Your task to perform on an android device: toggle show notifications on the lock screen Image 0: 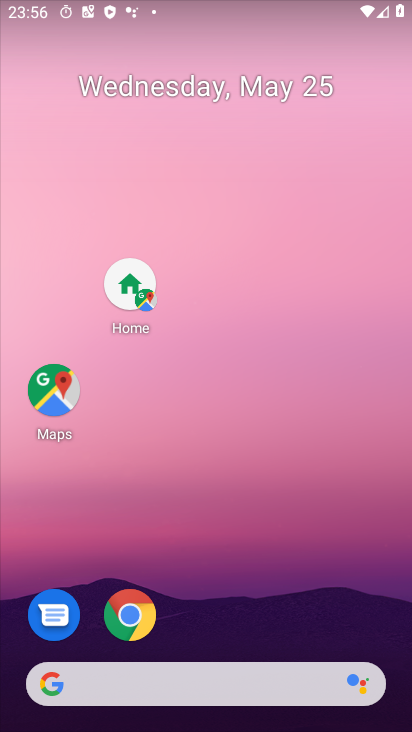
Step 0: press home button
Your task to perform on an android device: toggle show notifications on the lock screen Image 1: 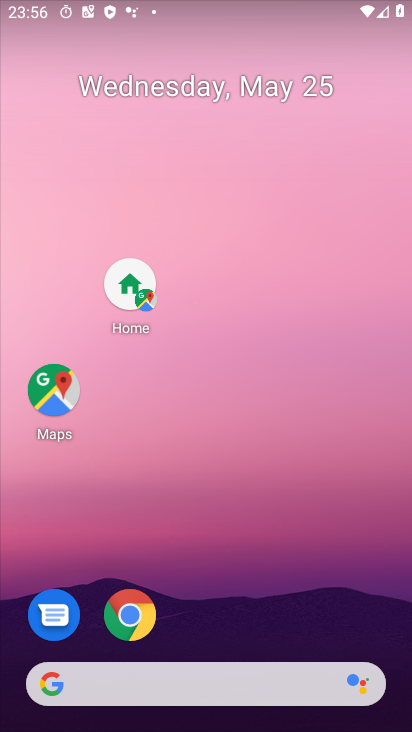
Step 1: drag from (206, 643) to (134, 112)
Your task to perform on an android device: toggle show notifications on the lock screen Image 2: 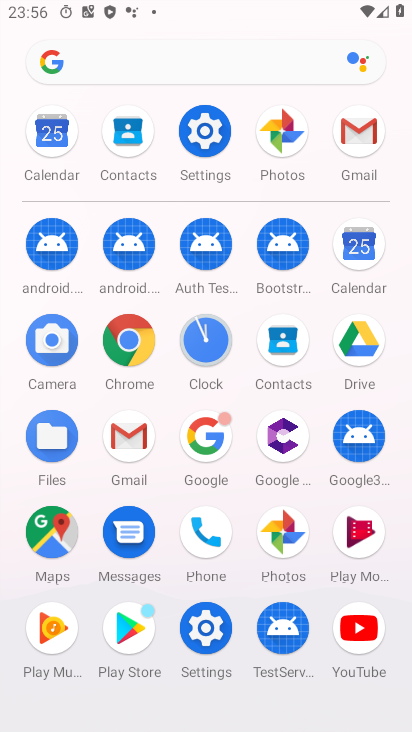
Step 2: click (195, 129)
Your task to perform on an android device: toggle show notifications on the lock screen Image 3: 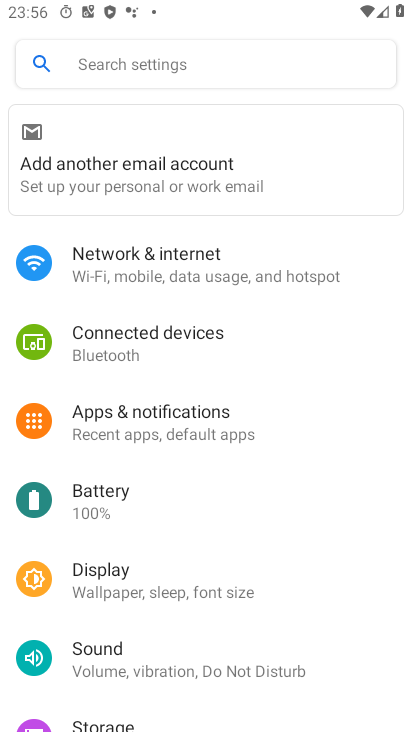
Step 3: click (141, 434)
Your task to perform on an android device: toggle show notifications on the lock screen Image 4: 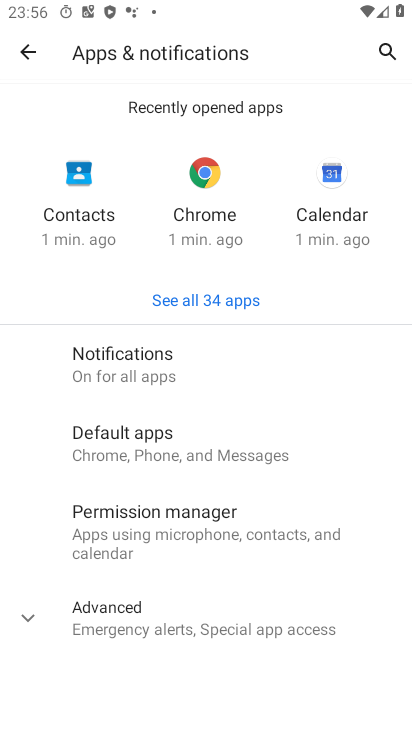
Step 4: click (117, 367)
Your task to perform on an android device: toggle show notifications on the lock screen Image 5: 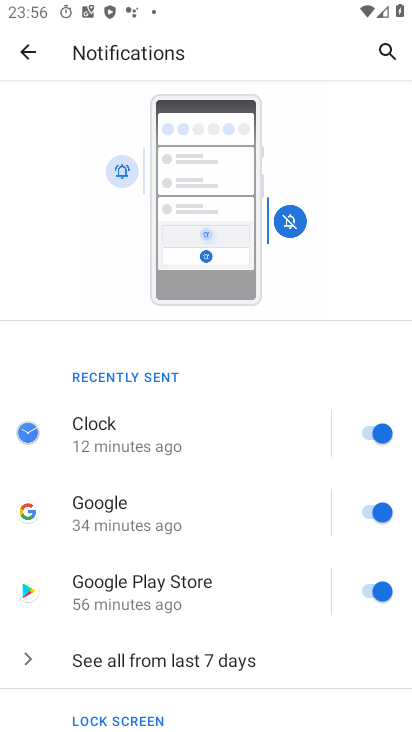
Step 5: drag from (269, 459) to (235, 113)
Your task to perform on an android device: toggle show notifications on the lock screen Image 6: 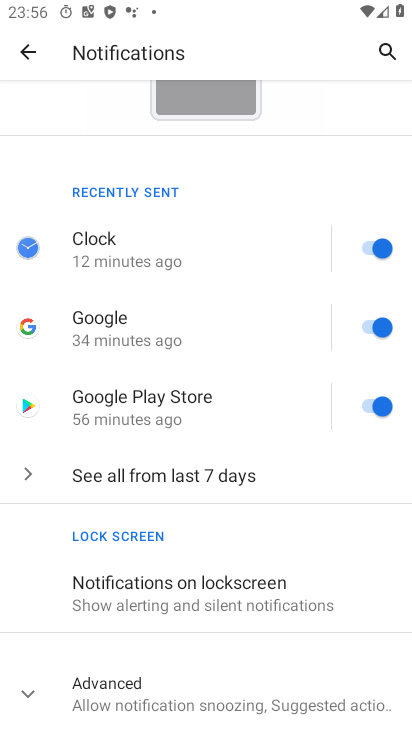
Step 6: click (164, 589)
Your task to perform on an android device: toggle show notifications on the lock screen Image 7: 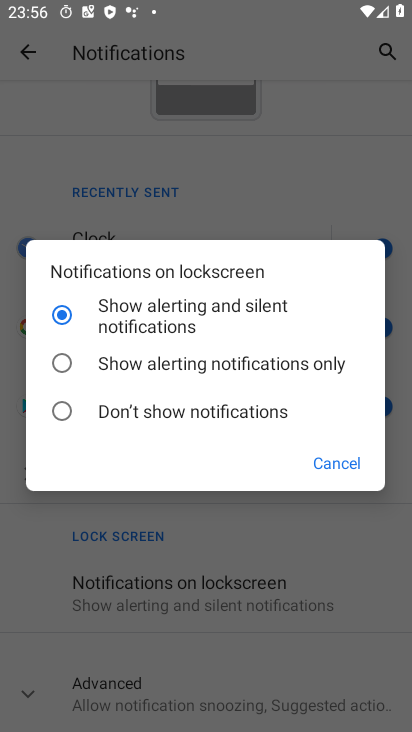
Step 7: task complete